Your task to perform on an android device: Open Amazon Image 0: 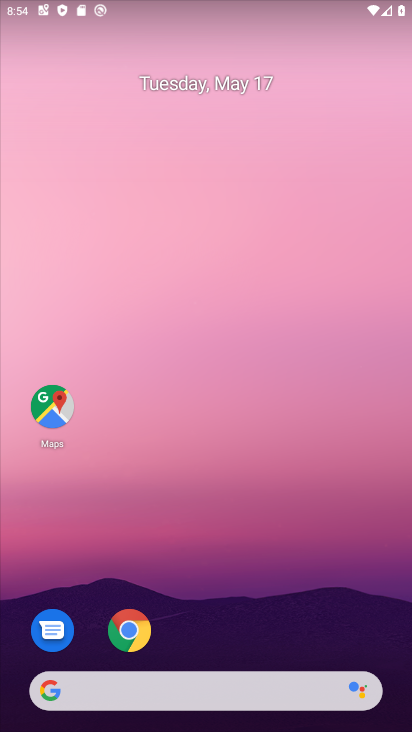
Step 0: click (116, 627)
Your task to perform on an android device: Open Amazon Image 1: 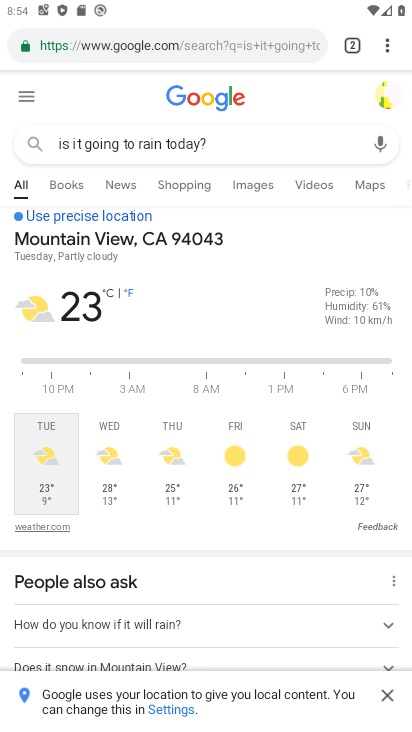
Step 1: click (360, 38)
Your task to perform on an android device: Open Amazon Image 2: 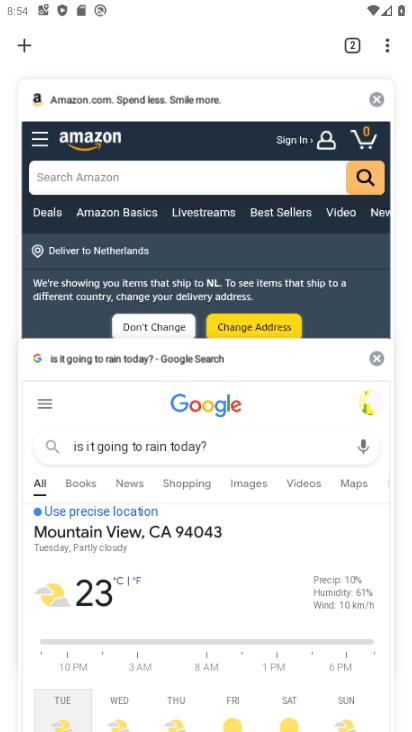
Step 2: click (223, 204)
Your task to perform on an android device: Open Amazon Image 3: 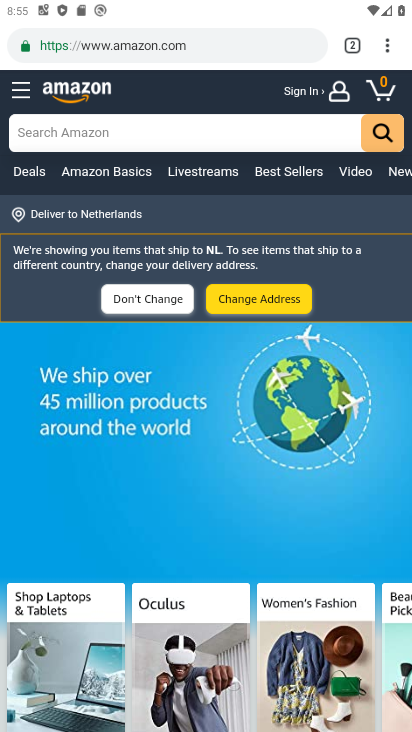
Step 3: task complete